Your task to perform on an android device: turn on showing notifications on the lock screen Image 0: 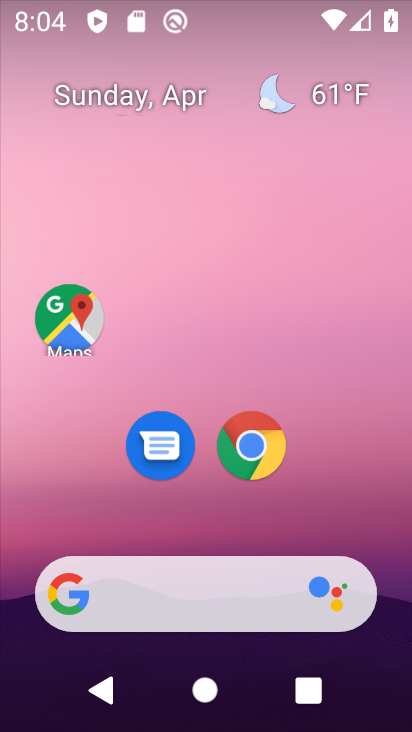
Step 0: drag from (210, 503) to (238, 135)
Your task to perform on an android device: turn on showing notifications on the lock screen Image 1: 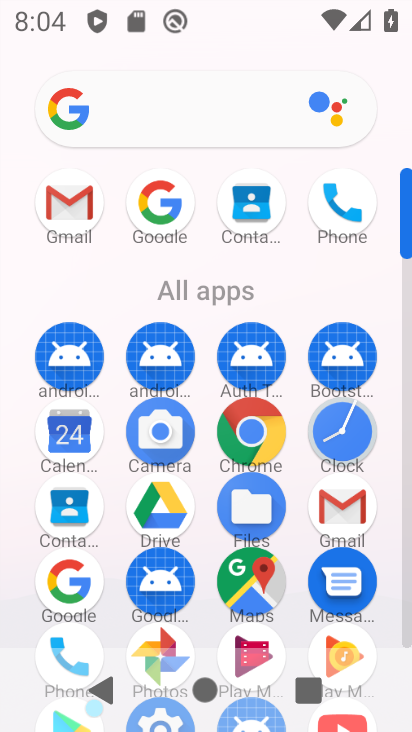
Step 1: drag from (111, 494) to (152, 282)
Your task to perform on an android device: turn on showing notifications on the lock screen Image 2: 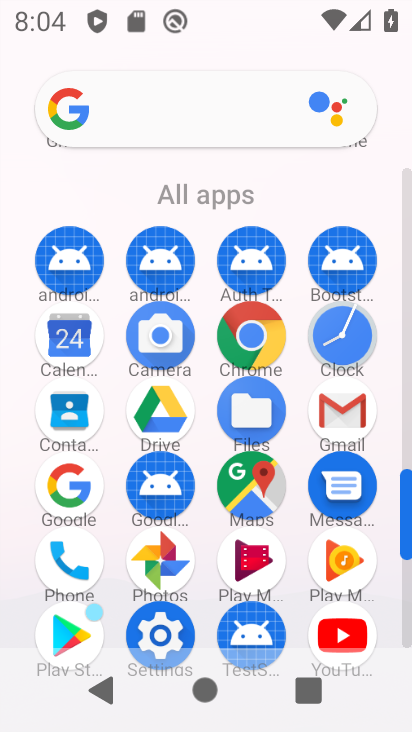
Step 2: click (156, 625)
Your task to perform on an android device: turn on showing notifications on the lock screen Image 3: 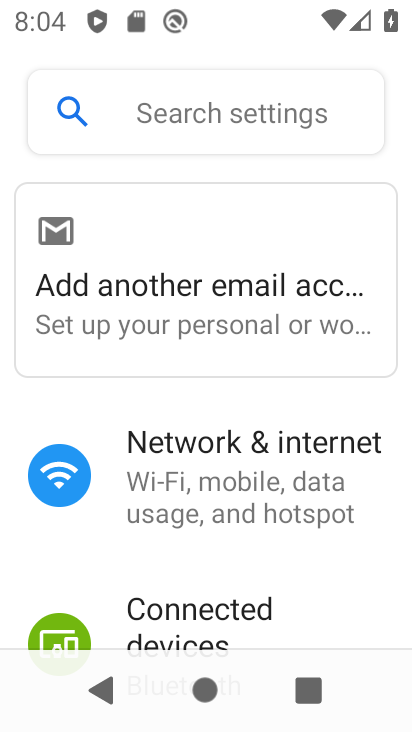
Step 3: drag from (243, 544) to (309, 286)
Your task to perform on an android device: turn on showing notifications on the lock screen Image 4: 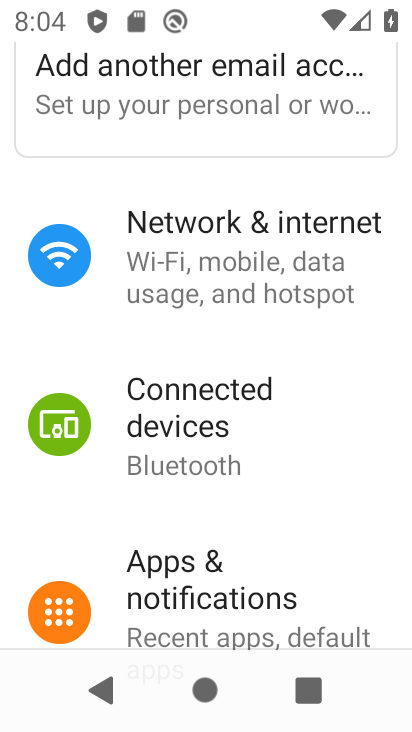
Step 4: drag from (271, 500) to (277, 265)
Your task to perform on an android device: turn on showing notifications on the lock screen Image 5: 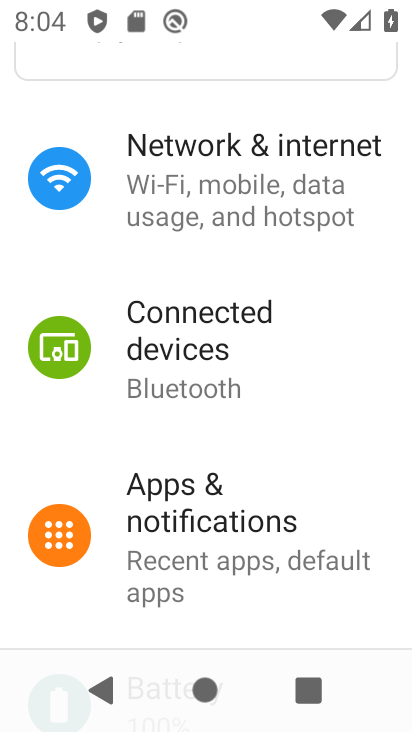
Step 5: click (216, 485)
Your task to perform on an android device: turn on showing notifications on the lock screen Image 6: 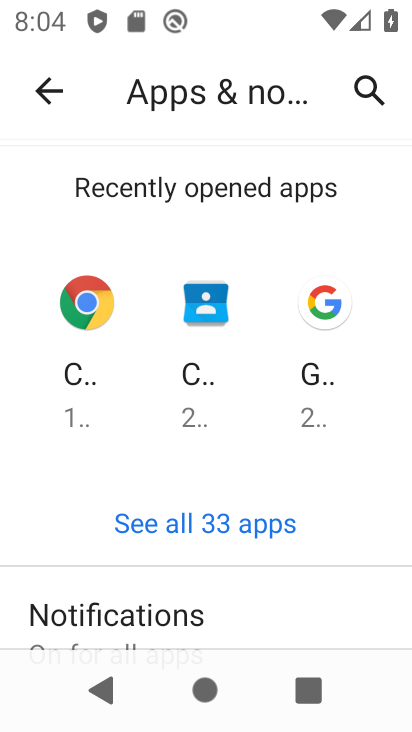
Step 6: drag from (197, 565) to (239, 240)
Your task to perform on an android device: turn on showing notifications on the lock screen Image 7: 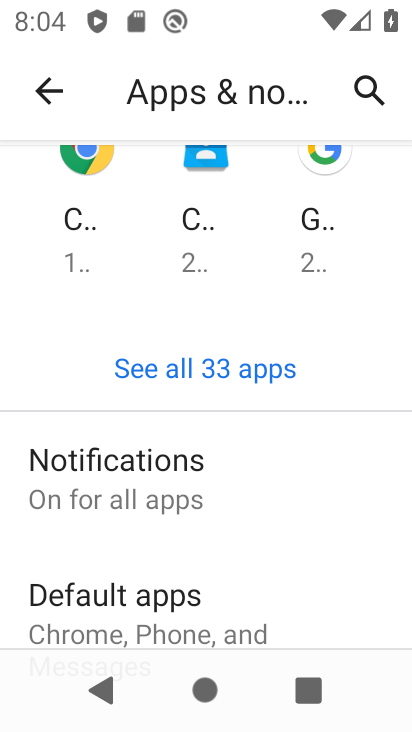
Step 7: click (167, 466)
Your task to perform on an android device: turn on showing notifications on the lock screen Image 8: 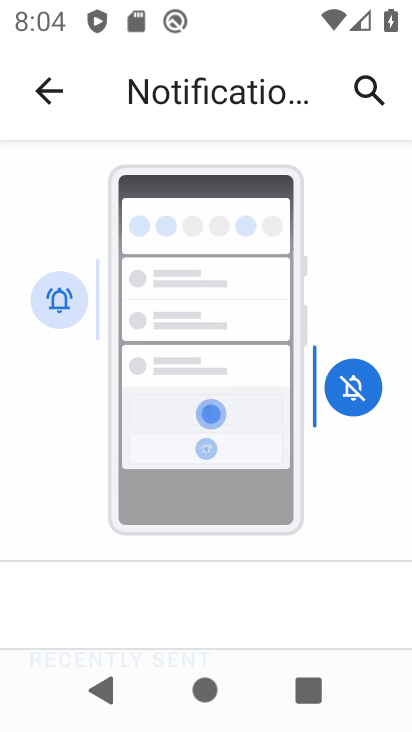
Step 8: drag from (242, 557) to (299, 210)
Your task to perform on an android device: turn on showing notifications on the lock screen Image 9: 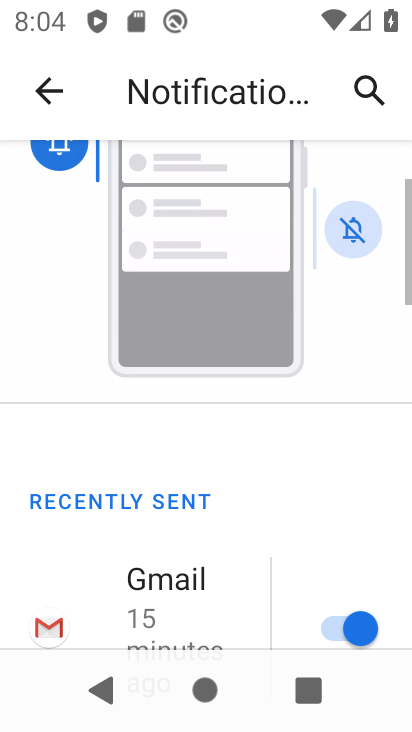
Step 9: drag from (292, 387) to (304, 240)
Your task to perform on an android device: turn on showing notifications on the lock screen Image 10: 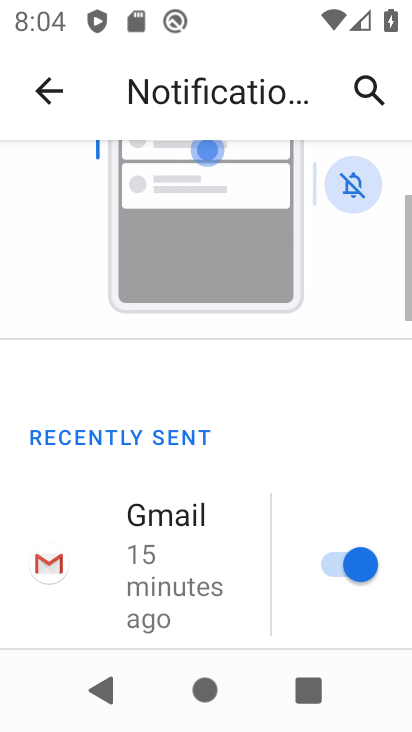
Step 10: drag from (213, 430) to (238, 308)
Your task to perform on an android device: turn on showing notifications on the lock screen Image 11: 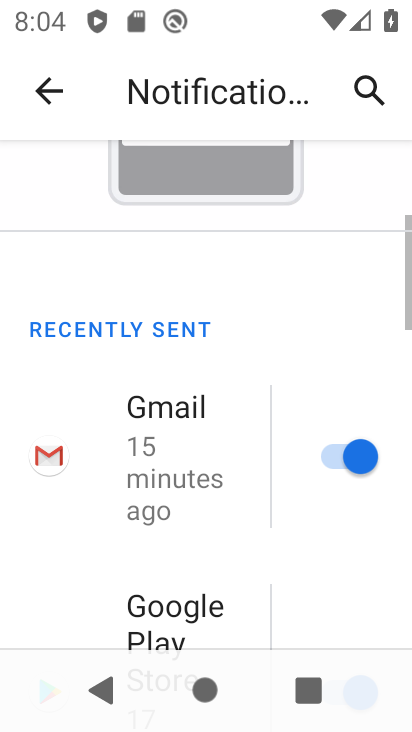
Step 11: drag from (228, 560) to (266, 319)
Your task to perform on an android device: turn on showing notifications on the lock screen Image 12: 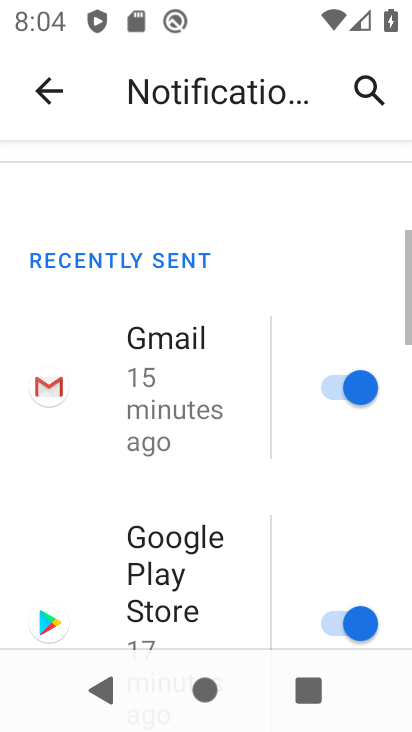
Step 12: drag from (271, 573) to (274, 307)
Your task to perform on an android device: turn on showing notifications on the lock screen Image 13: 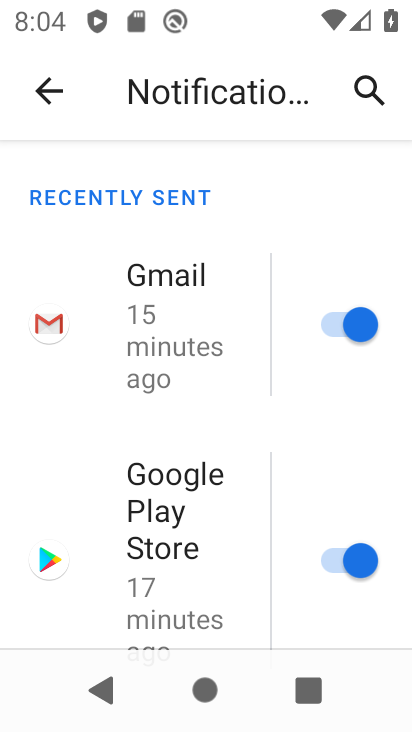
Step 13: drag from (201, 581) to (250, 302)
Your task to perform on an android device: turn on showing notifications on the lock screen Image 14: 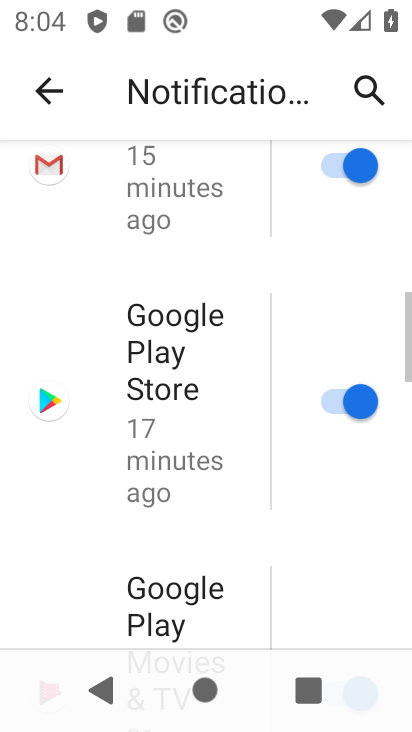
Step 14: drag from (229, 564) to (217, 249)
Your task to perform on an android device: turn on showing notifications on the lock screen Image 15: 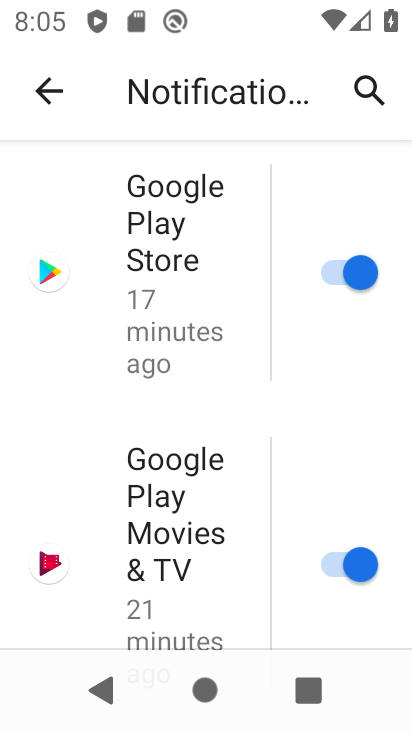
Step 15: drag from (200, 595) to (232, 230)
Your task to perform on an android device: turn on showing notifications on the lock screen Image 16: 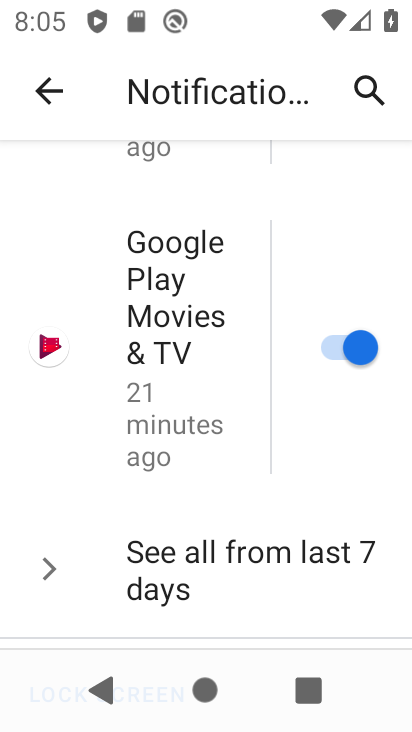
Step 16: drag from (240, 613) to (241, 155)
Your task to perform on an android device: turn on showing notifications on the lock screen Image 17: 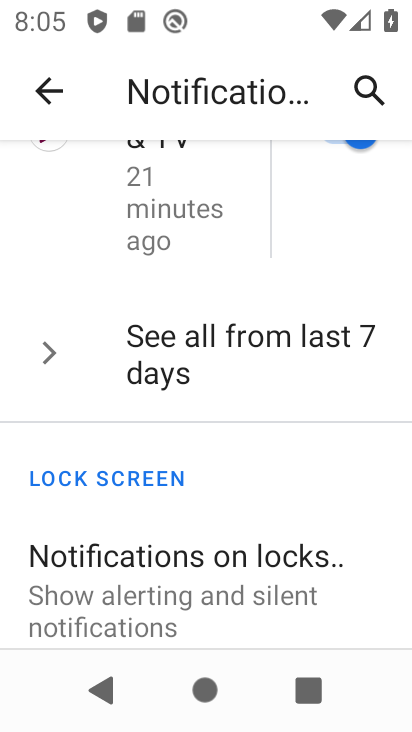
Step 17: drag from (273, 532) to (298, 295)
Your task to perform on an android device: turn on showing notifications on the lock screen Image 18: 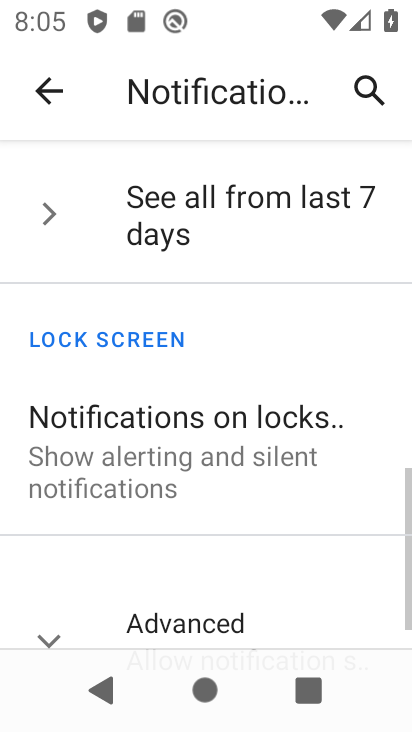
Step 18: click (232, 406)
Your task to perform on an android device: turn on showing notifications on the lock screen Image 19: 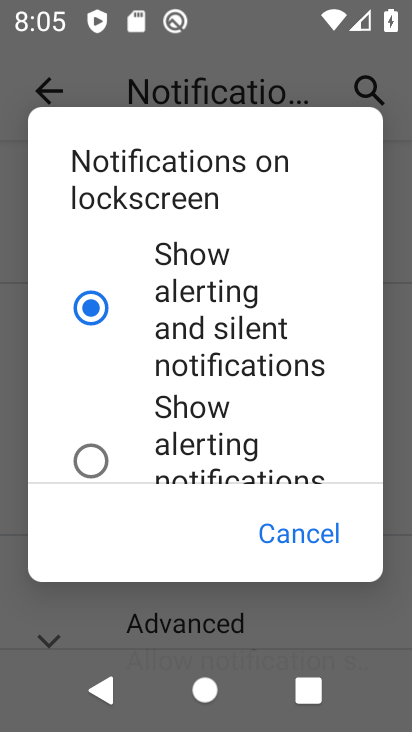
Step 19: task complete